Your task to perform on an android device: Go to privacy settings Image 0: 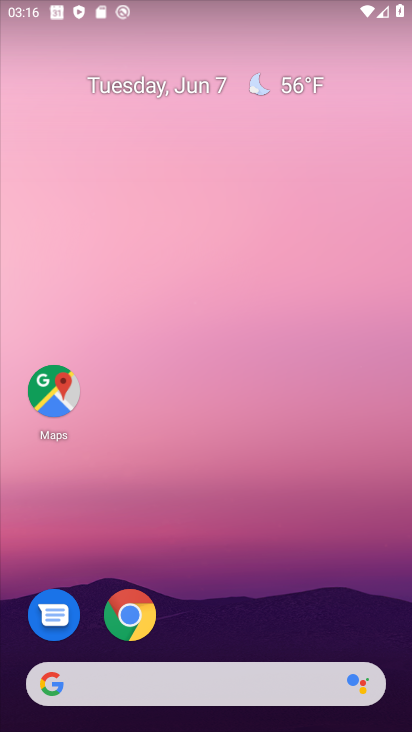
Step 0: drag from (269, 671) to (246, 390)
Your task to perform on an android device: Go to privacy settings Image 1: 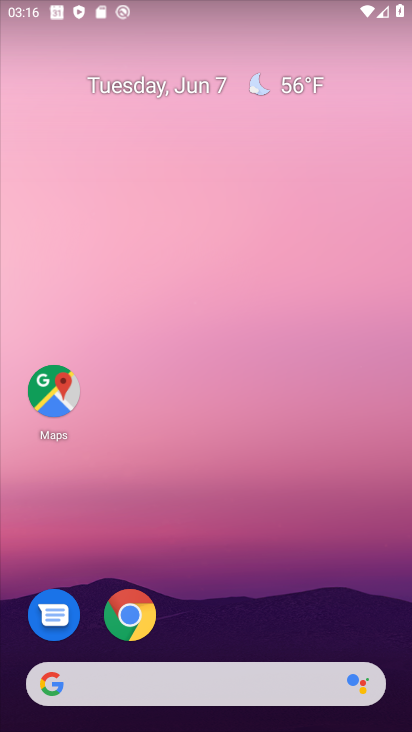
Step 1: drag from (280, 608) to (269, 280)
Your task to perform on an android device: Go to privacy settings Image 2: 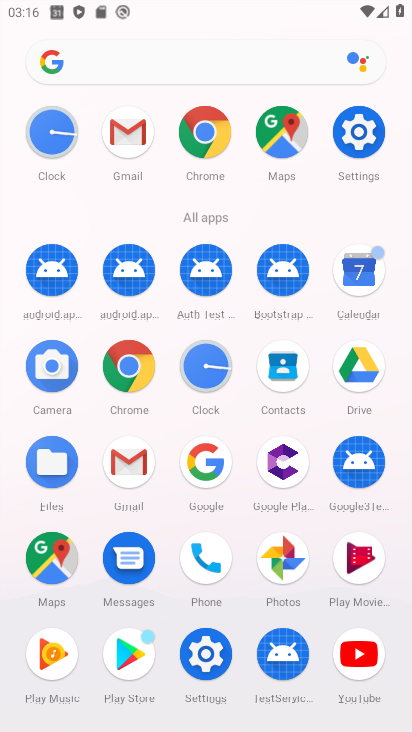
Step 2: click (344, 139)
Your task to perform on an android device: Go to privacy settings Image 3: 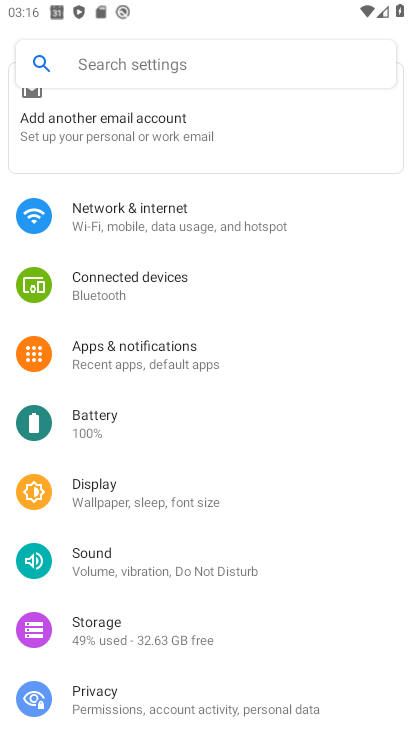
Step 3: click (122, 689)
Your task to perform on an android device: Go to privacy settings Image 4: 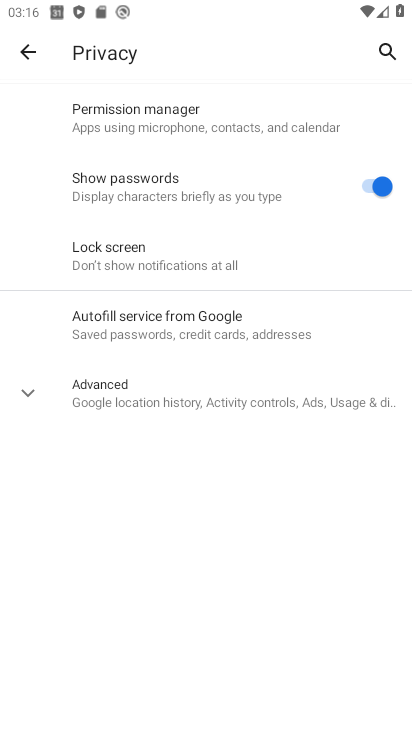
Step 4: click (141, 387)
Your task to perform on an android device: Go to privacy settings Image 5: 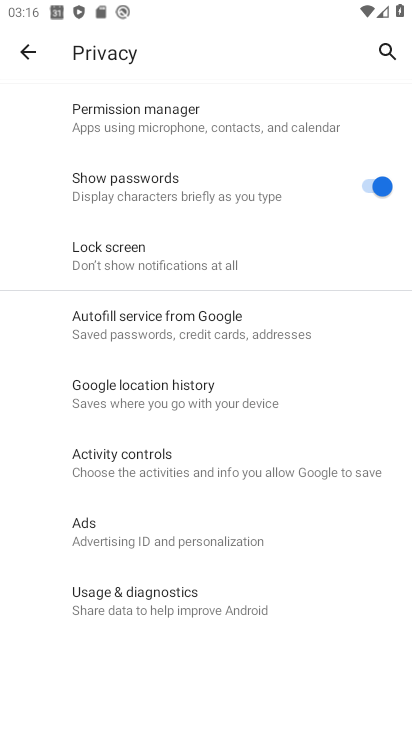
Step 5: task complete